Your task to perform on an android device: stop showing notifications on the lock screen Image 0: 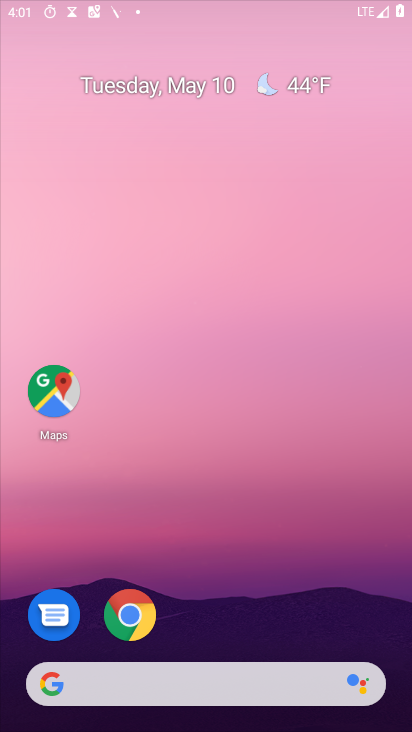
Step 0: drag from (291, 677) to (216, 0)
Your task to perform on an android device: stop showing notifications on the lock screen Image 1: 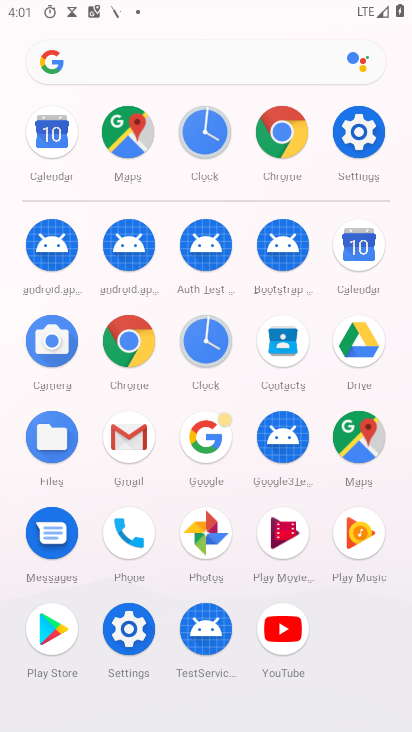
Step 1: click (363, 148)
Your task to perform on an android device: stop showing notifications on the lock screen Image 2: 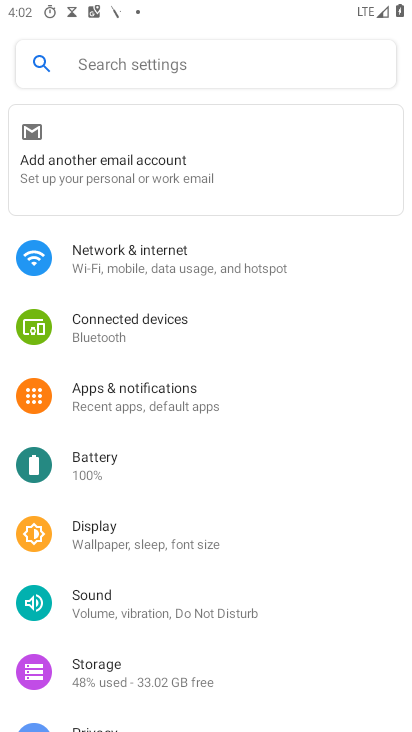
Step 2: click (182, 400)
Your task to perform on an android device: stop showing notifications on the lock screen Image 3: 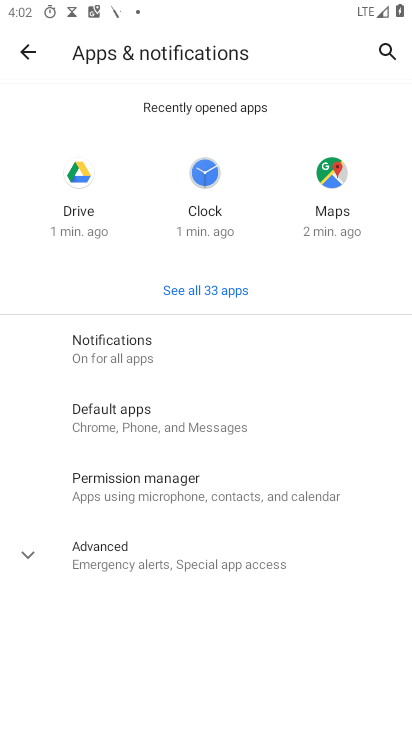
Step 3: click (142, 363)
Your task to perform on an android device: stop showing notifications on the lock screen Image 4: 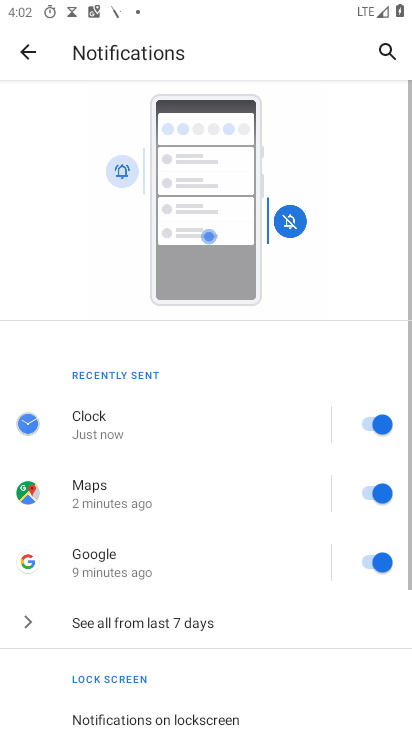
Step 4: drag from (250, 613) to (246, 113)
Your task to perform on an android device: stop showing notifications on the lock screen Image 5: 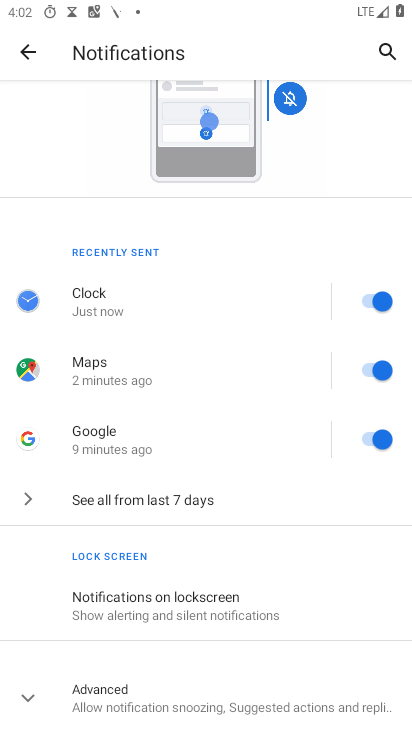
Step 5: click (155, 609)
Your task to perform on an android device: stop showing notifications on the lock screen Image 6: 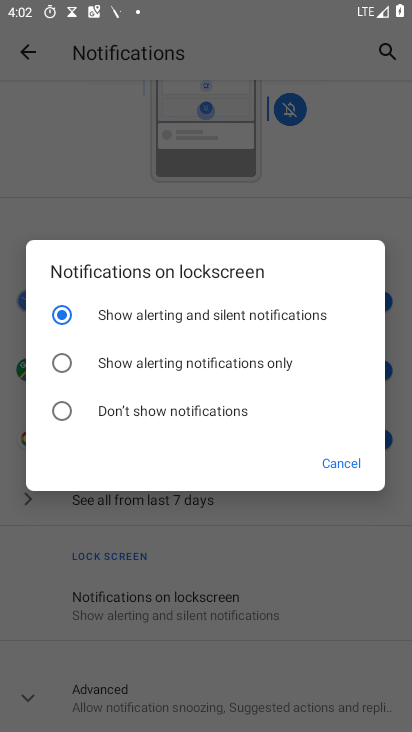
Step 6: click (125, 419)
Your task to perform on an android device: stop showing notifications on the lock screen Image 7: 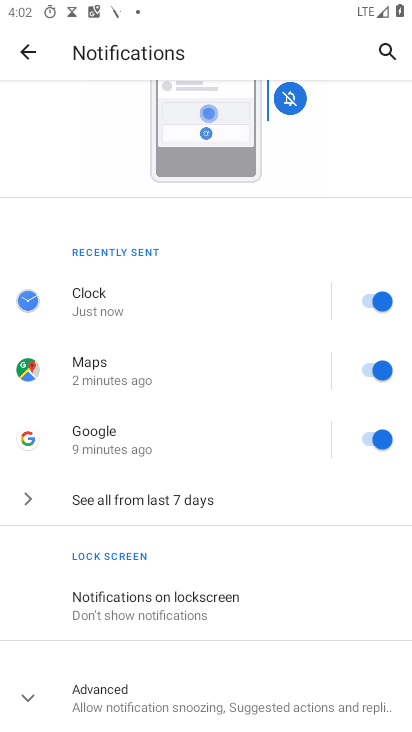
Step 7: task complete